Your task to perform on an android device: Open maps Image 0: 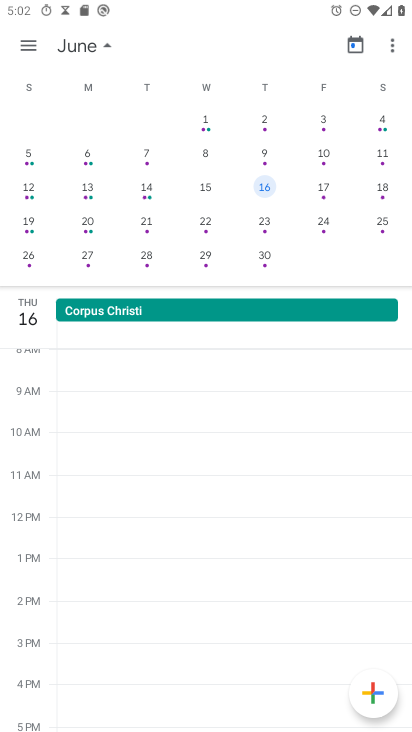
Step 0: press home button
Your task to perform on an android device: Open maps Image 1: 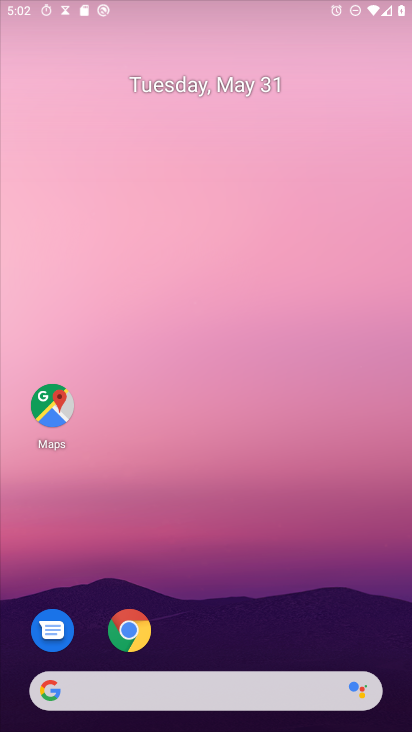
Step 1: drag from (275, 659) to (243, 84)
Your task to perform on an android device: Open maps Image 2: 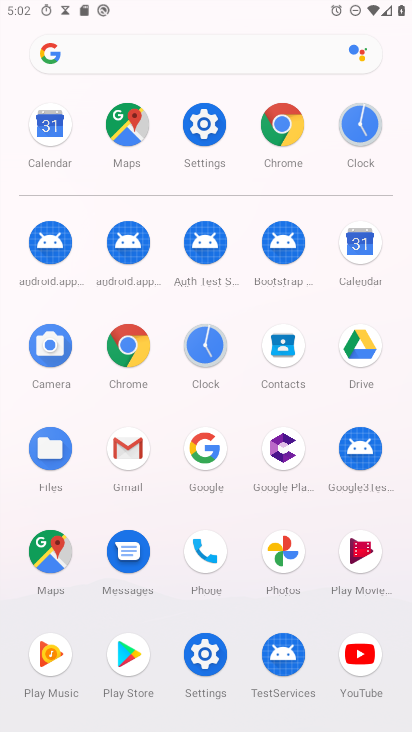
Step 2: click (68, 562)
Your task to perform on an android device: Open maps Image 3: 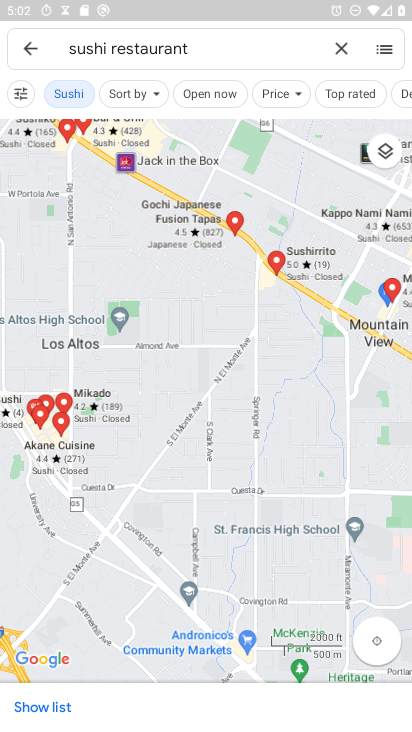
Step 3: task complete